Your task to perform on an android device: change notifications settings Image 0: 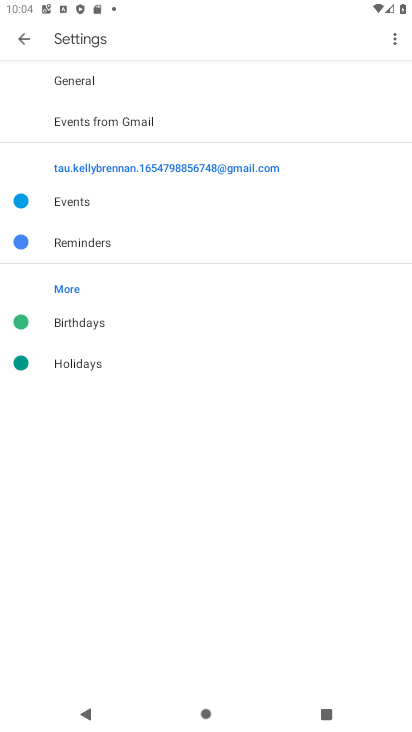
Step 0: press home button
Your task to perform on an android device: change notifications settings Image 1: 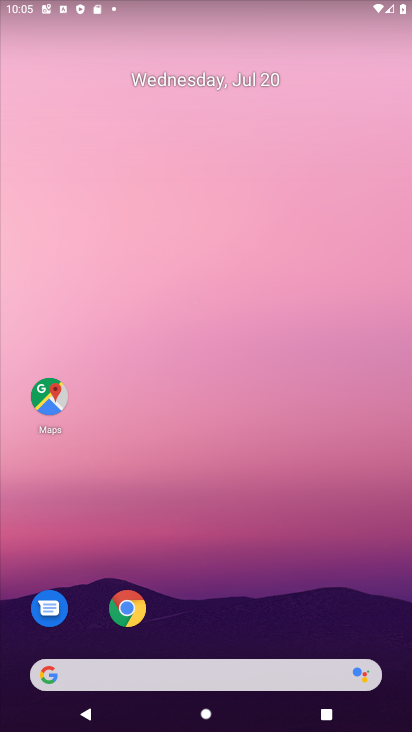
Step 1: drag from (247, 583) to (224, 0)
Your task to perform on an android device: change notifications settings Image 2: 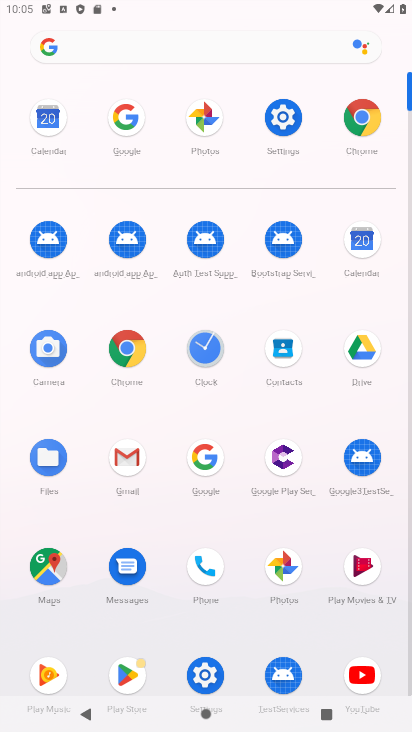
Step 2: click (206, 675)
Your task to perform on an android device: change notifications settings Image 3: 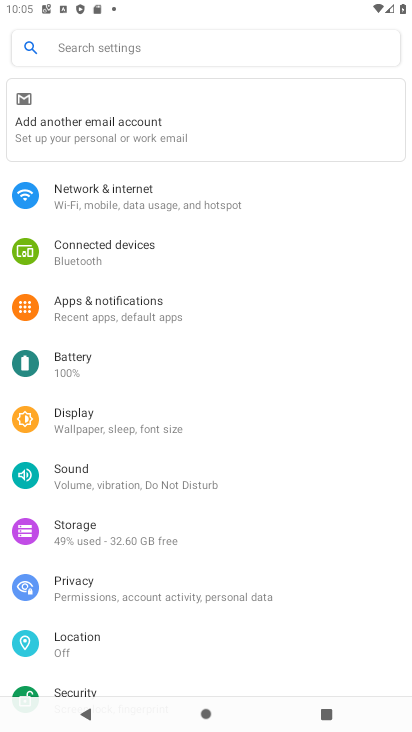
Step 3: click (163, 308)
Your task to perform on an android device: change notifications settings Image 4: 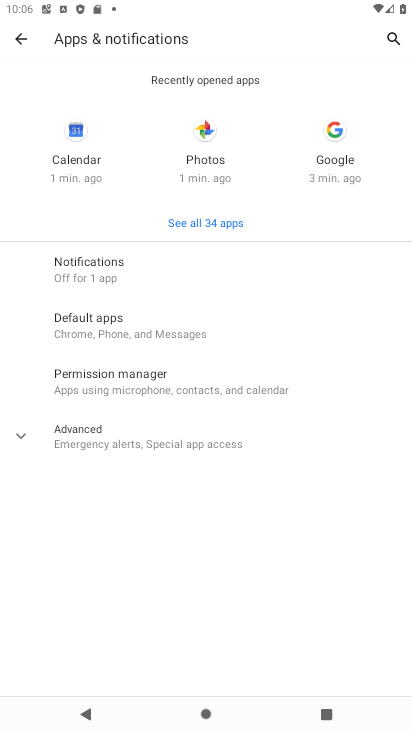
Step 4: click (155, 286)
Your task to perform on an android device: change notifications settings Image 5: 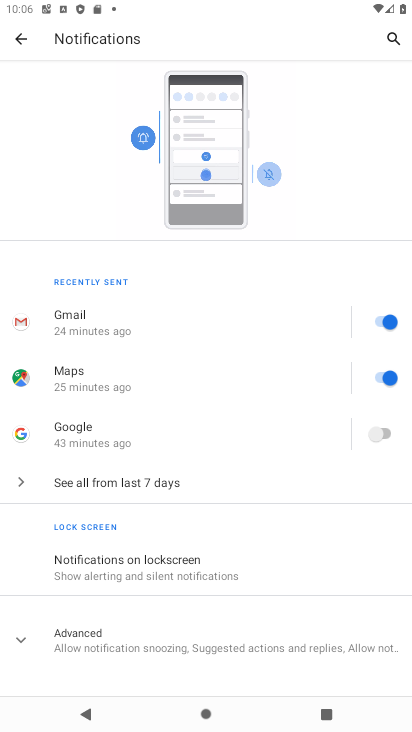
Step 5: click (384, 323)
Your task to perform on an android device: change notifications settings Image 6: 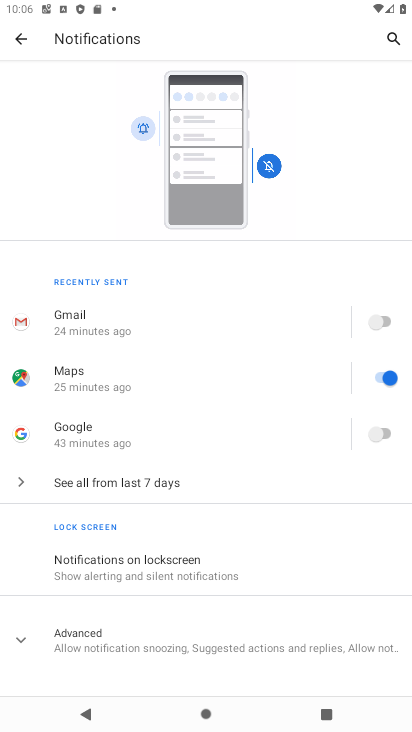
Step 6: task complete